Your task to perform on an android device: Search for the best rated headphones on Amazon. Image 0: 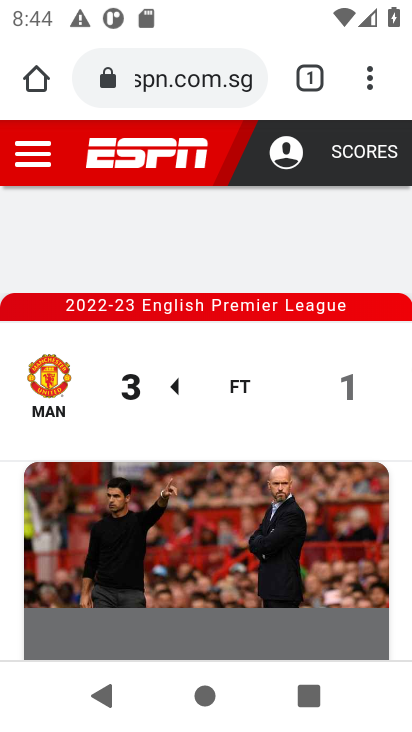
Step 0: task complete